Your task to perform on an android device: see sites visited before in the chrome app Image 0: 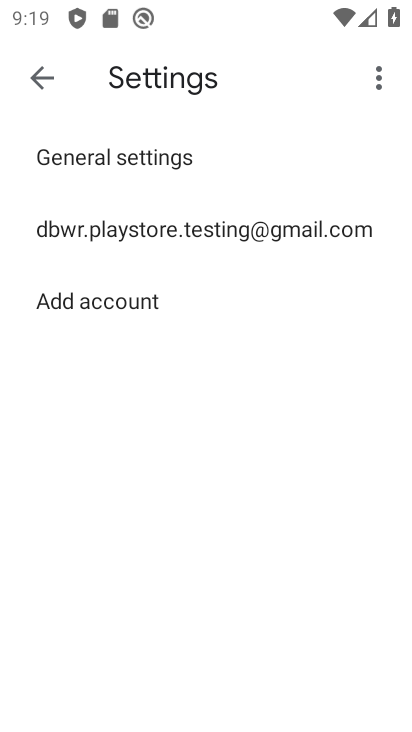
Step 0: press home button
Your task to perform on an android device: see sites visited before in the chrome app Image 1: 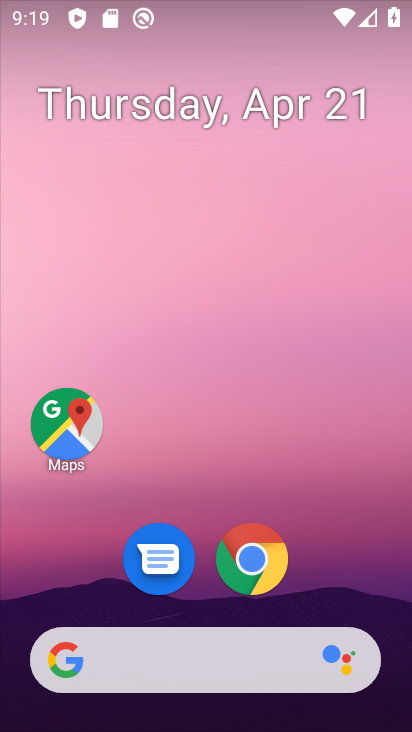
Step 1: click (267, 541)
Your task to perform on an android device: see sites visited before in the chrome app Image 2: 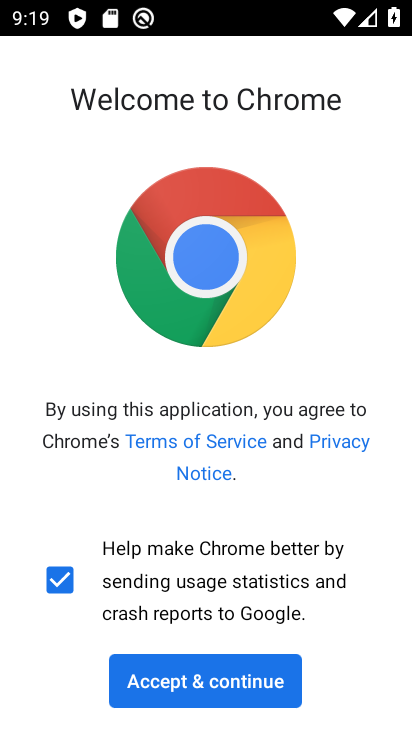
Step 2: click (242, 669)
Your task to perform on an android device: see sites visited before in the chrome app Image 3: 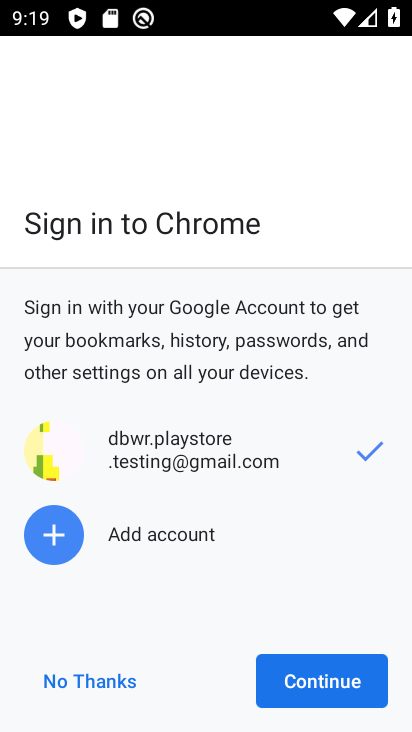
Step 3: click (312, 674)
Your task to perform on an android device: see sites visited before in the chrome app Image 4: 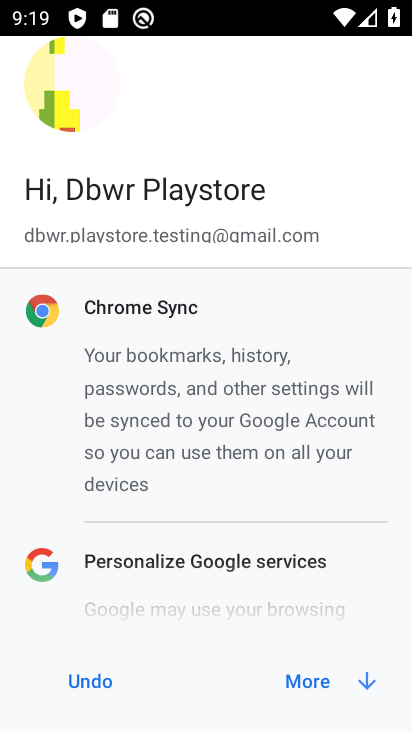
Step 4: click (313, 674)
Your task to perform on an android device: see sites visited before in the chrome app Image 5: 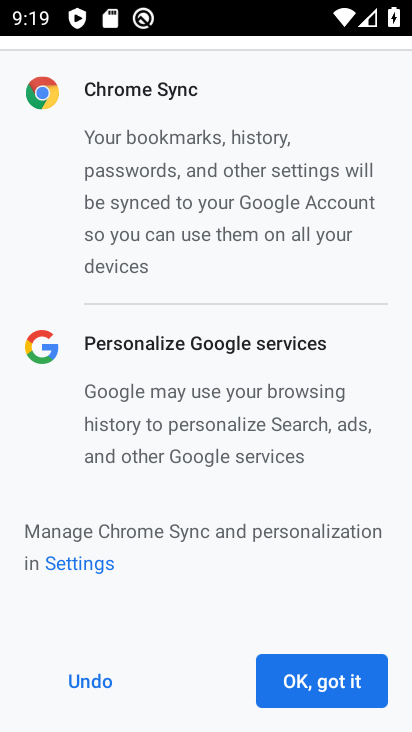
Step 5: click (313, 674)
Your task to perform on an android device: see sites visited before in the chrome app Image 6: 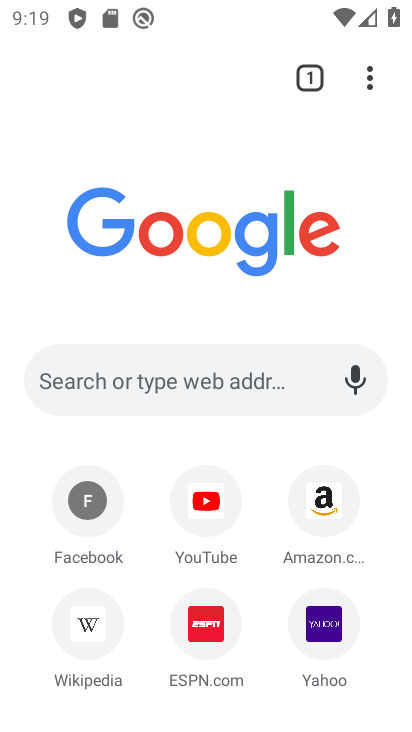
Step 6: click (366, 83)
Your task to perform on an android device: see sites visited before in the chrome app Image 7: 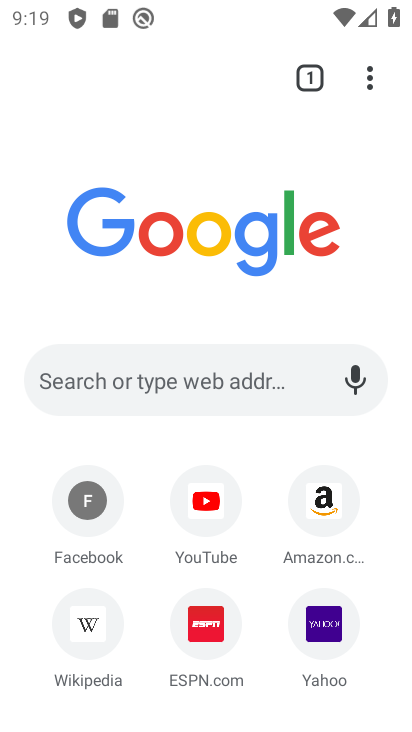
Step 7: click (375, 81)
Your task to perform on an android device: see sites visited before in the chrome app Image 8: 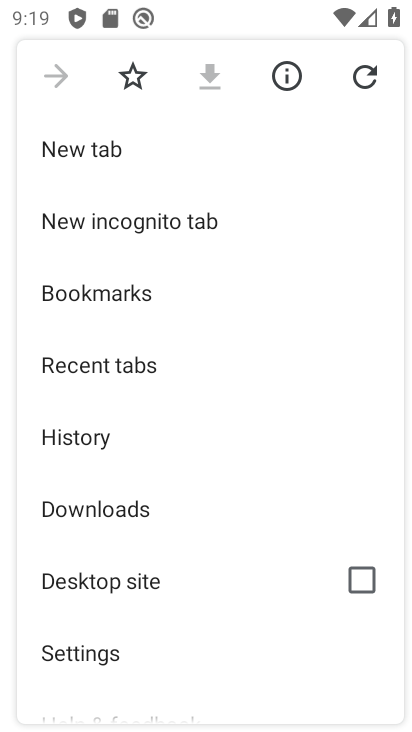
Step 8: click (111, 445)
Your task to perform on an android device: see sites visited before in the chrome app Image 9: 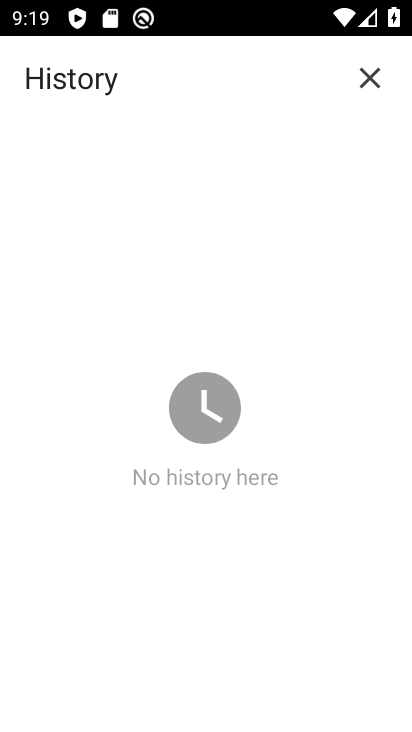
Step 9: task complete